Your task to perform on an android device: Show me popular games on the Play Store Image 0: 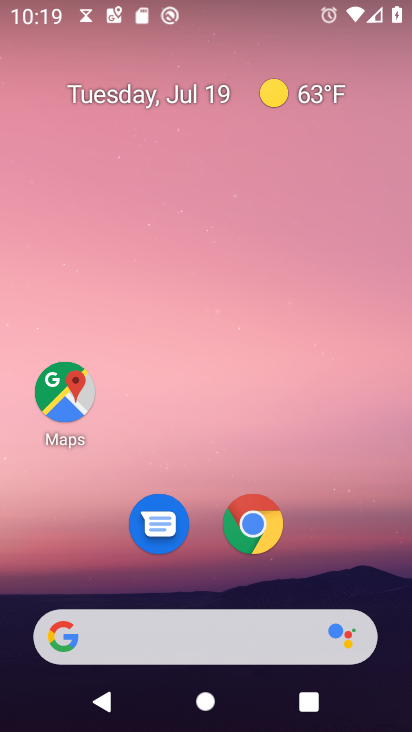
Step 0: press home button
Your task to perform on an android device: Show me popular games on the Play Store Image 1: 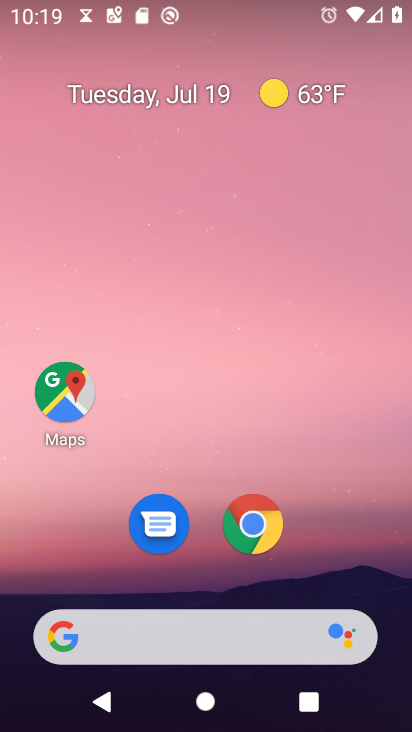
Step 1: drag from (191, 646) to (302, 113)
Your task to perform on an android device: Show me popular games on the Play Store Image 2: 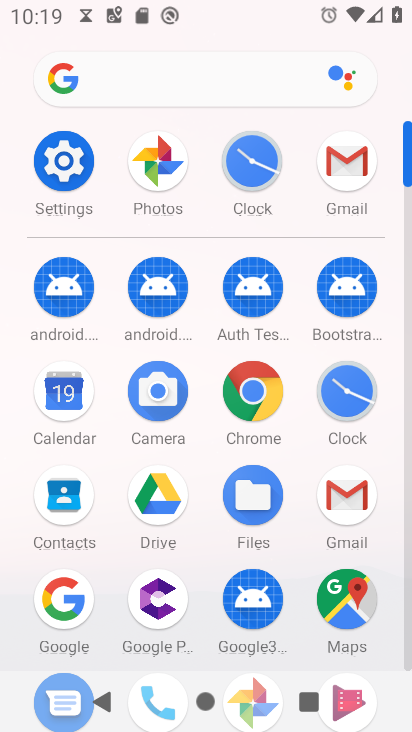
Step 2: drag from (192, 550) to (309, 117)
Your task to perform on an android device: Show me popular games on the Play Store Image 3: 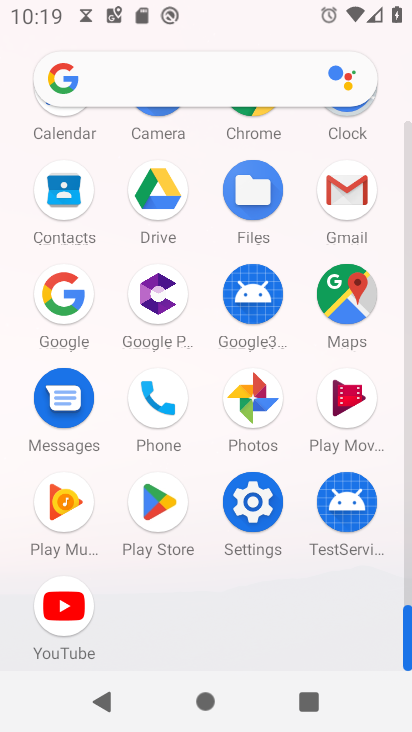
Step 3: click (154, 506)
Your task to perform on an android device: Show me popular games on the Play Store Image 4: 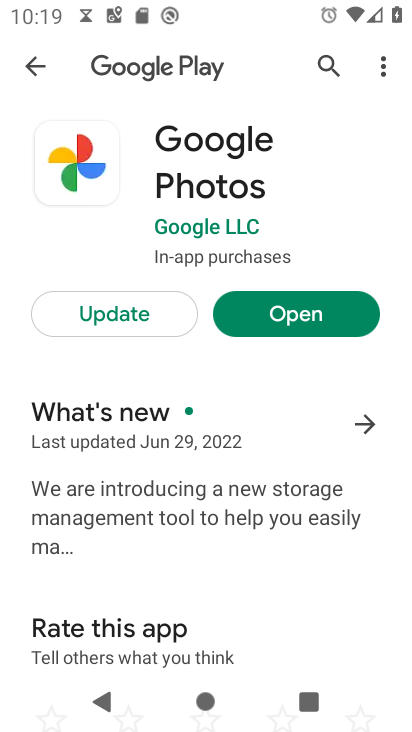
Step 4: click (28, 62)
Your task to perform on an android device: Show me popular games on the Play Store Image 5: 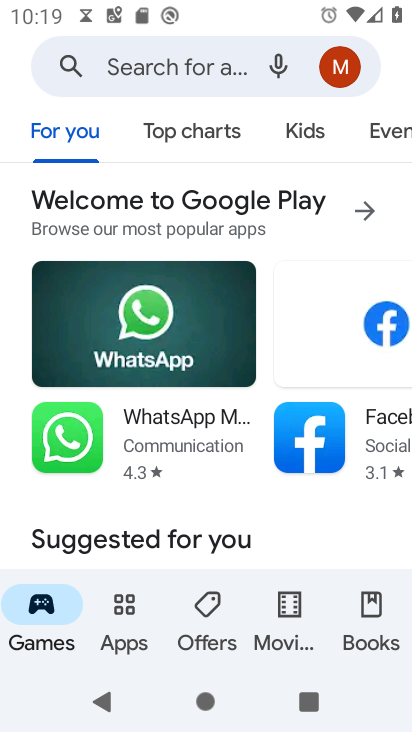
Step 5: drag from (211, 525) to (340, 53)
Your task to perform on an android device: Show me popular games on the Play Store Image 6: 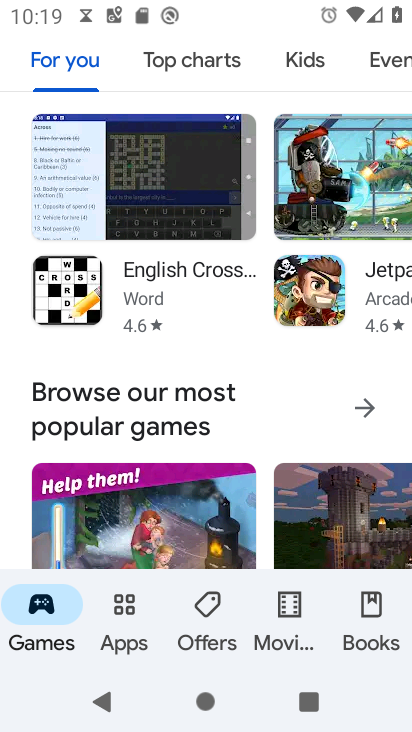
Step 6: click (363, 402)
Your task to perform on an android device: Show me popular games on the Play Store Image 7: 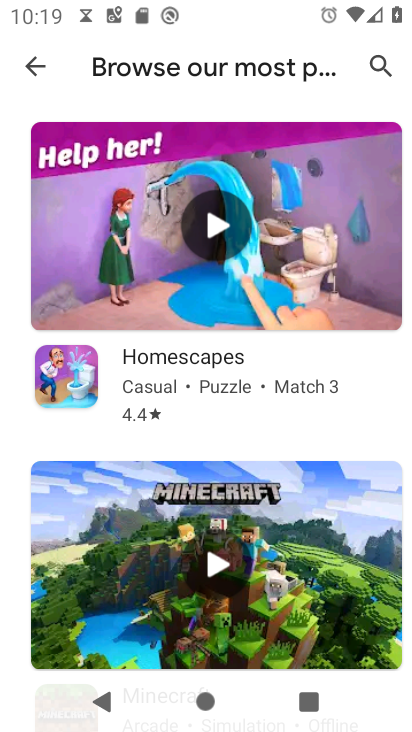
Step 7: task complete